Your task to perform on an android device: Open Youtube and go to the subscriptions tab Image 0: 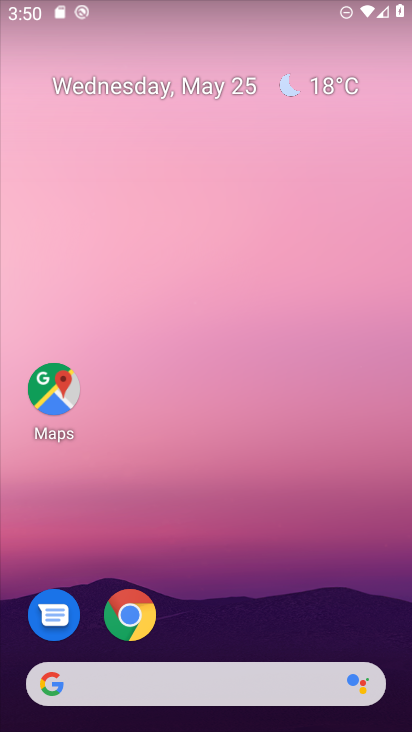
Step 0: drag from (254, 593) to (272, 5)
Your task to perform on an android device: Open Youtube and go to the subscriptions tab Image 1: 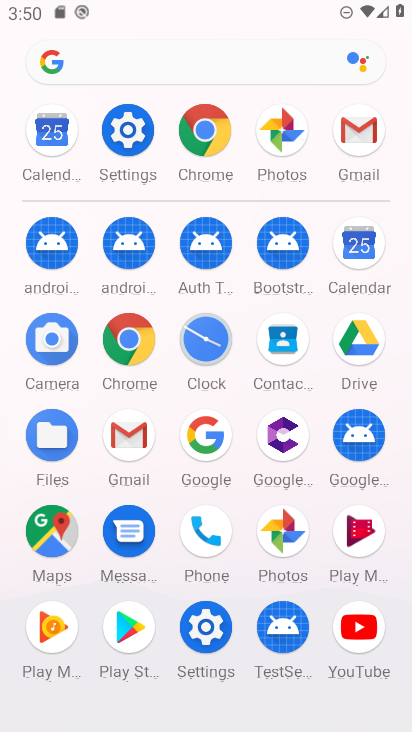
Step 1: click (352, 616)
Your task to perform on an android device: Open Youtube and go to the subscriptions tab Image 2: 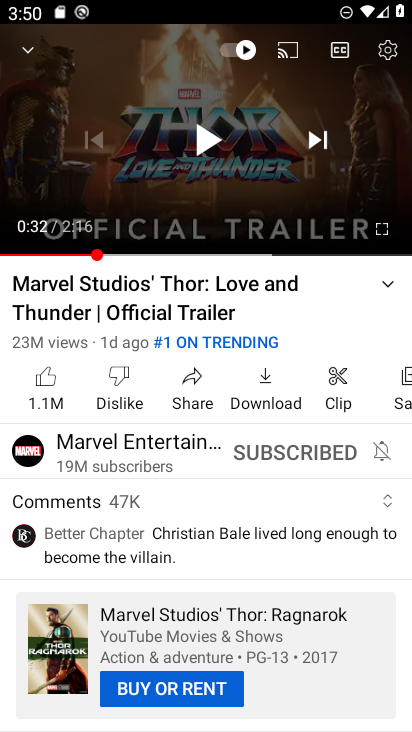
Step 2: press back button
Your task to perform on an android device: Open Youtube and go to the subscriptions tab Image 3: 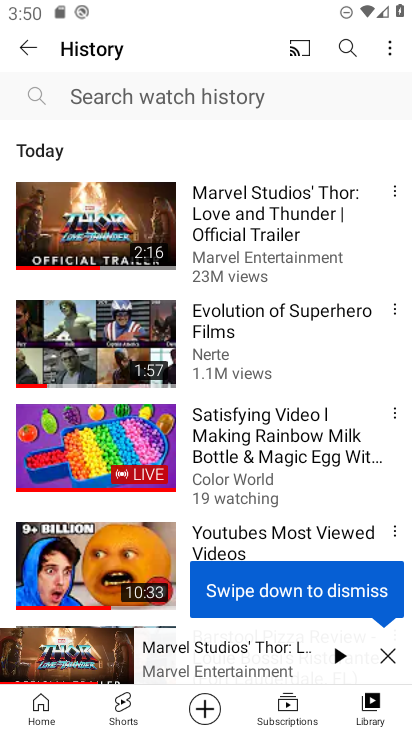
Step 3: click (297, 709)
Your task to perform on an android device: Open Youtube and go to the subscriptions tab Image 4: 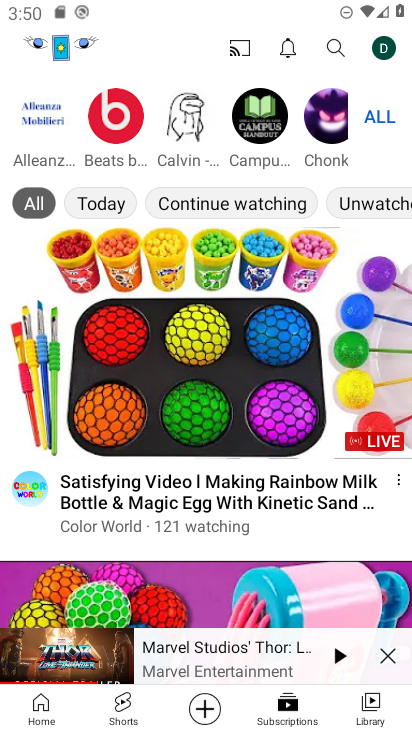
Step 4: task complete